Your task to perform on an android device: turn off javascript in the chrome app Image 0: 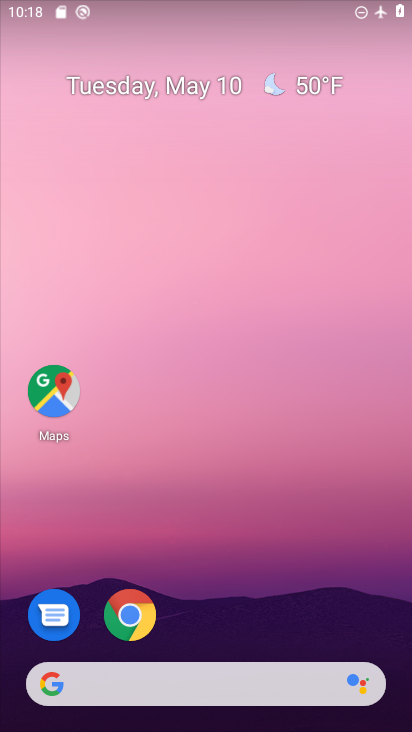
Step 0: click (137, 616)
Your task to perform on an android device: turn off javascript in the chrome app Image 1: 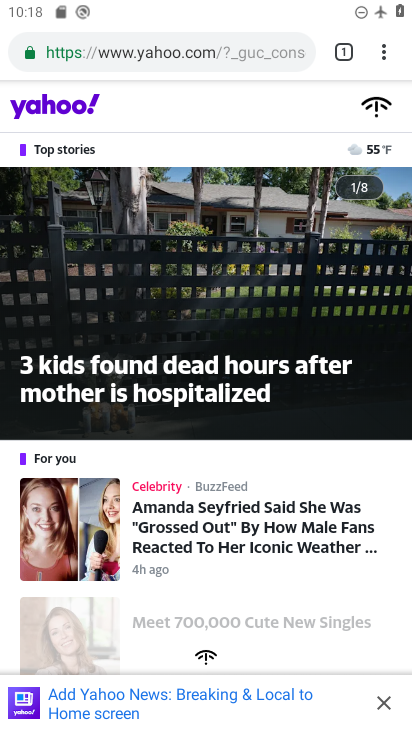
Step 1: click (381, 54)
Your task to perform on an android device: turn off javascript in the chrome app Image 2: 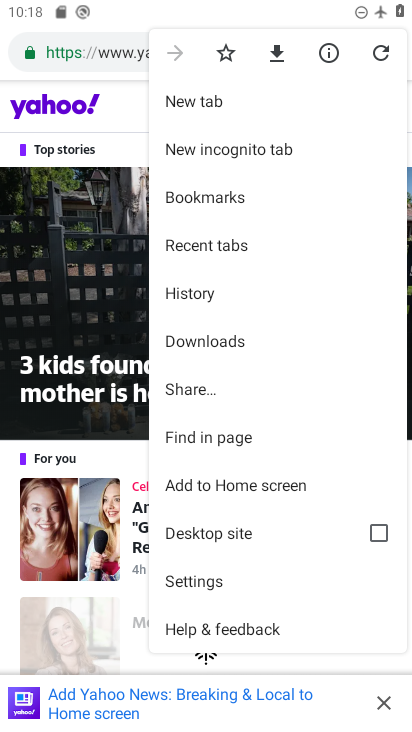
Step 2: click (202, 579)
Your task to perform on an android device: turn off javascript in the chrome app Image 3: 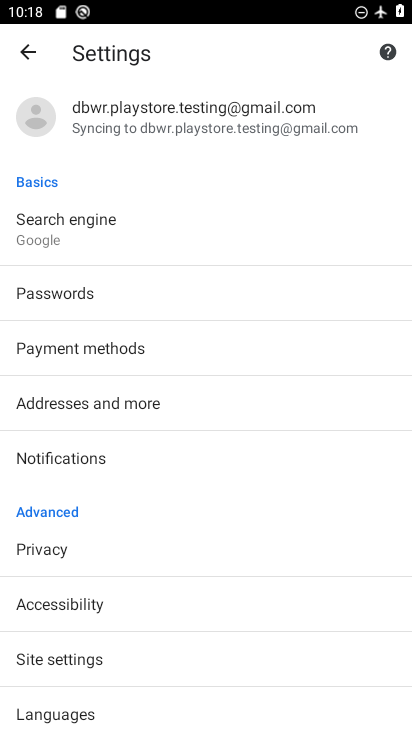
Step 3: drag from (204, 595) to (211, 475)
Your task to perform on an android device: turn off javascript in the chrome app Image 4: 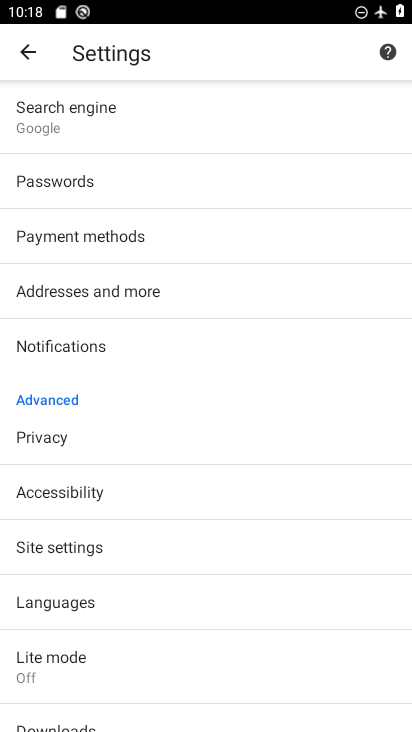
Step 4: click (55, 549)
Your task to perform on an android device: turn off javascript in the chrome app Image 5: 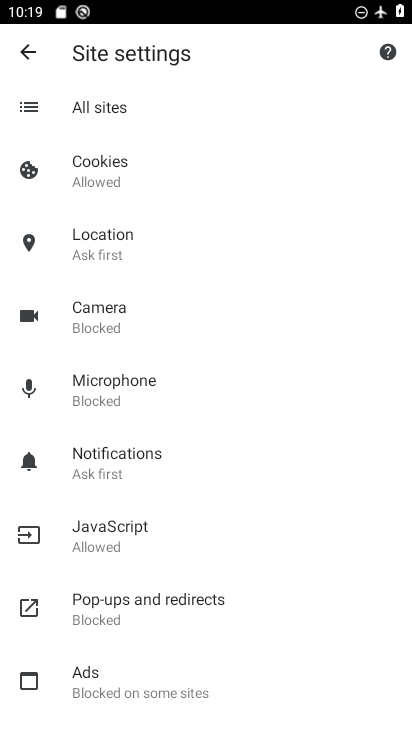
Step 5: click (100, 524)
Your task to perform on an android device: turn off javascript in the chrome app Image 6: 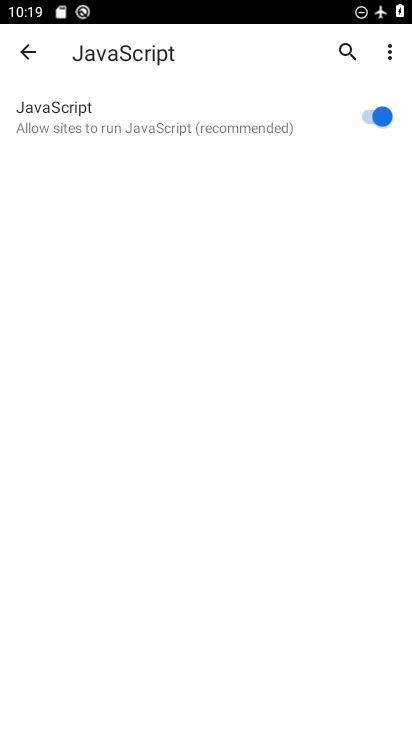
Step 6: click (368, 112)
Your task to perform on an android device: turn off javascript in the chrome app Image 7: 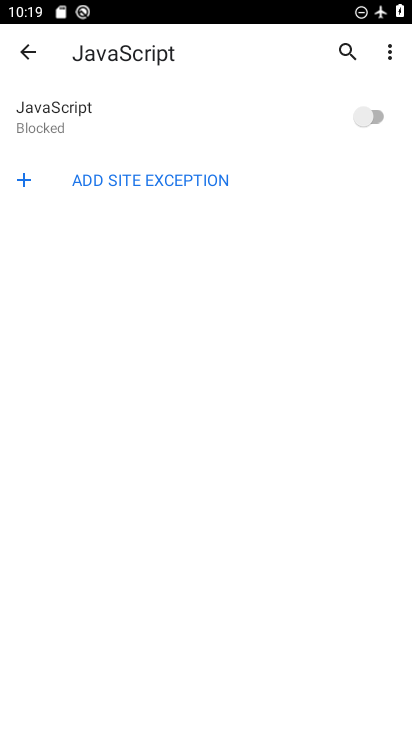
Step 7: task complete